Your task to perform on an android device: change timer sound Image 0: 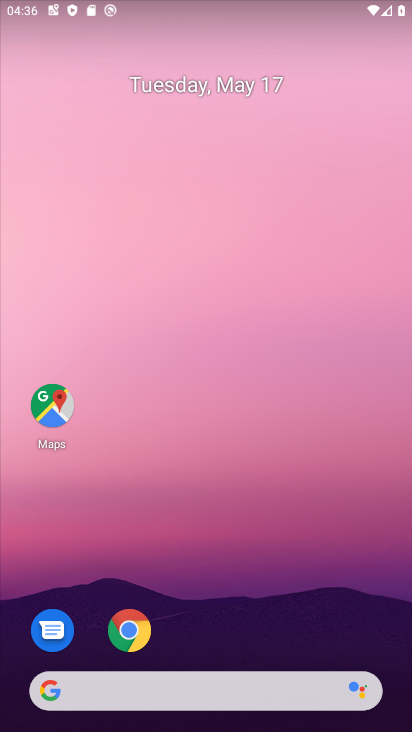
Step 0: drag from (222, 630) to (242, 38)
Your task to perform on an android device: change timer sound Image 1: 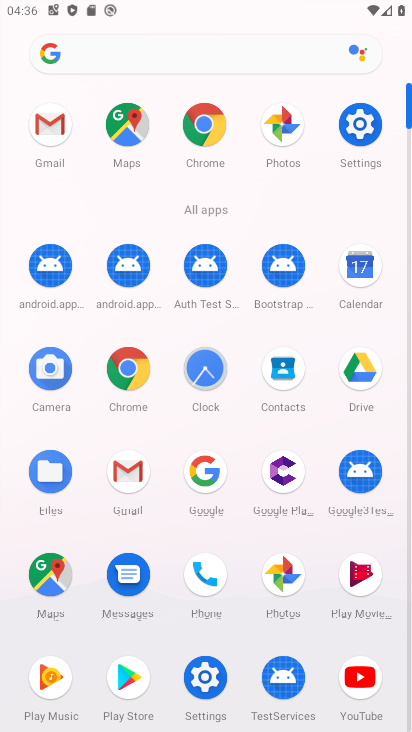
Step 1: click (359, 122)
Your task to perform on an android device: change timer sound Image 2: 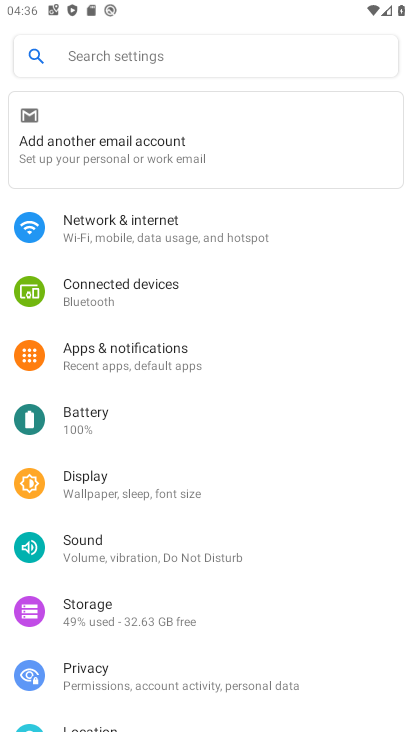
Step 2: press home button
Your task to perform on an android device: change timer sound Image 3: 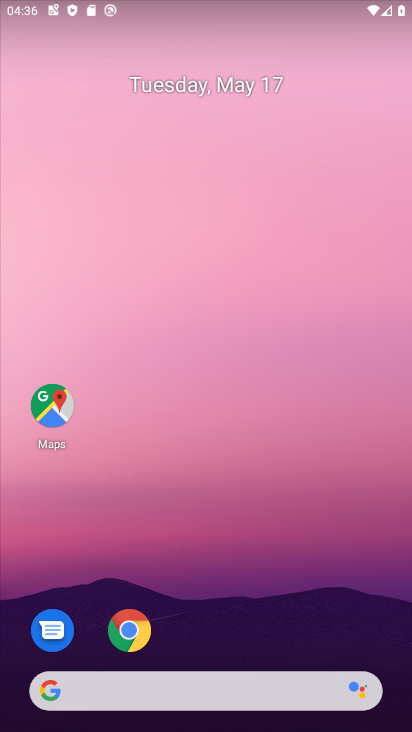
Step 3: drag from (223, 585) to (226, 106)
Your task to perform on an android device: change timer sound Image 4: 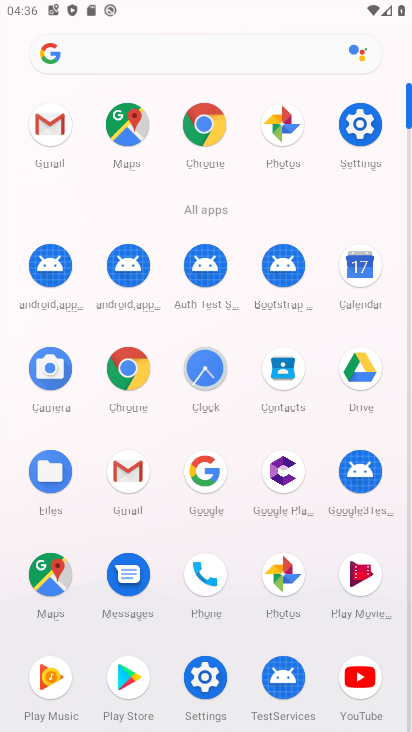
Step 4: click (212, 373)
Your task to perform on an android device: change timer sound Image 5: 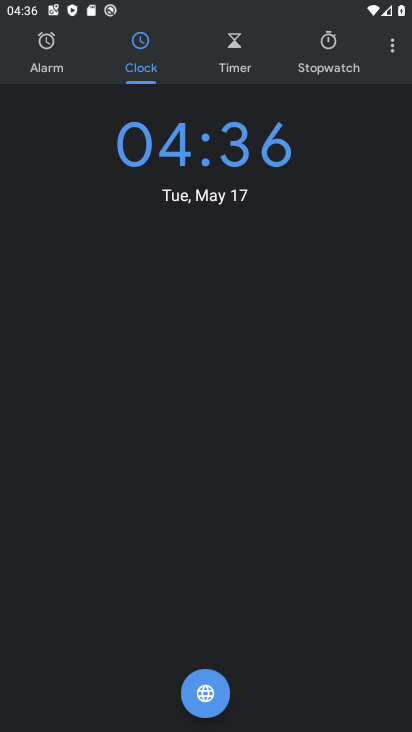
Step 5: click (393, 46)
Your task to perform on an android device: change timer sound Image 6: 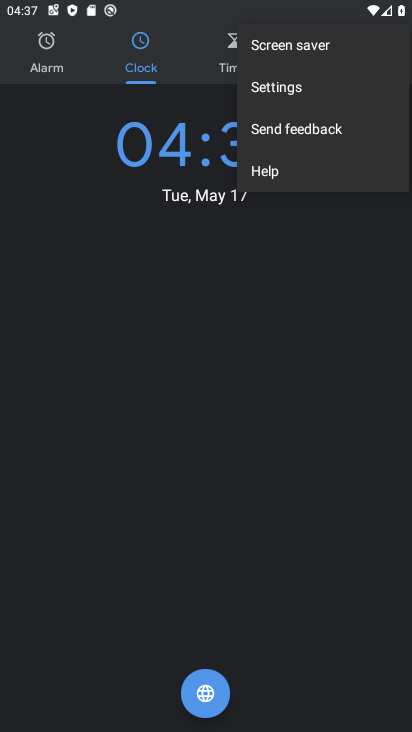
Step 6: click (279, 92)
Your task to perform on an android device: change timer sound Image 7: 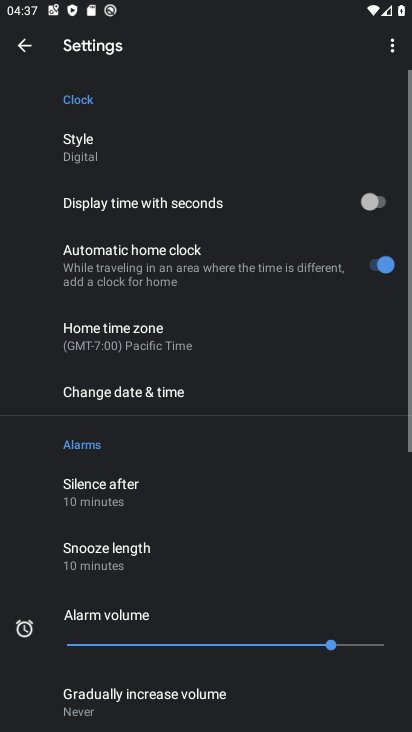
Step 7: drag from (227, 552) to (246, 99)
Your task to perform on an android device: change timer sound Image 8: 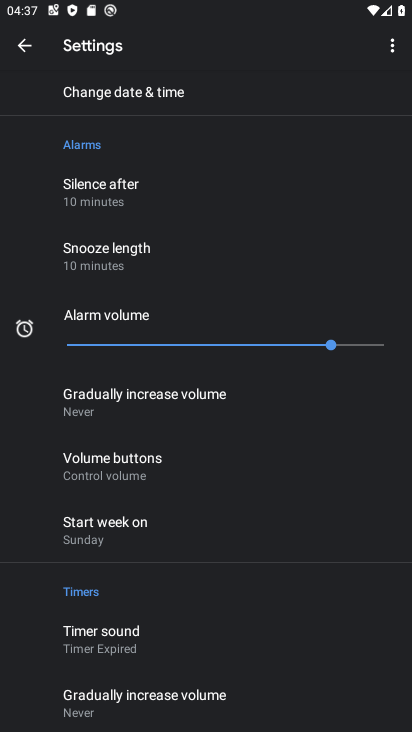
Step 8: click (122, 643)
Your task to perform on an android device: change timer sound Image 9: 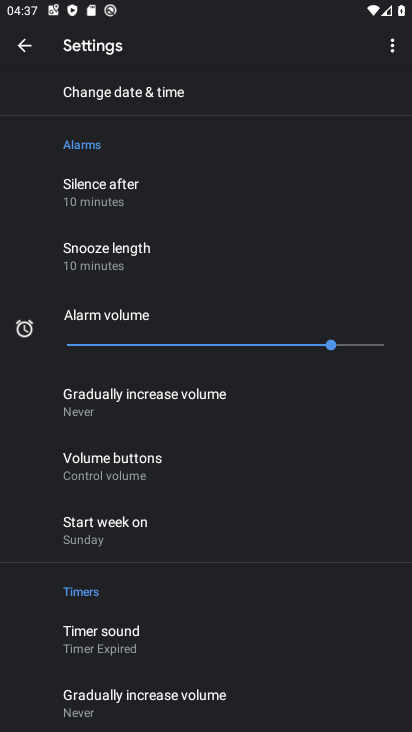
Step 9: click (105, 629)
Your task to perform on an android device: change timer sound Image 10: 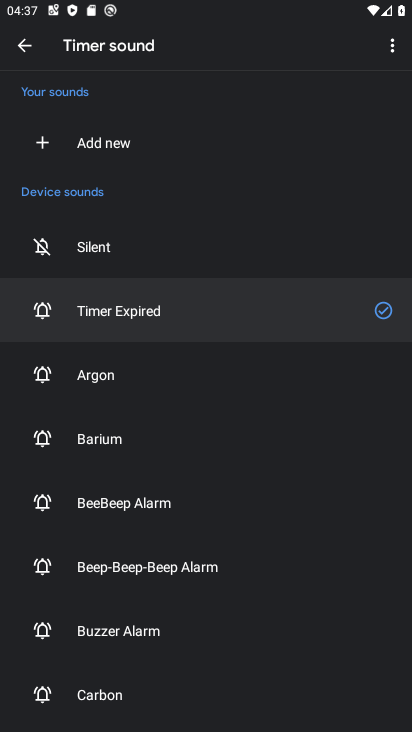
Step 10: click (93, 373)
Your task to perform on an android device: change timer sound Image 11: 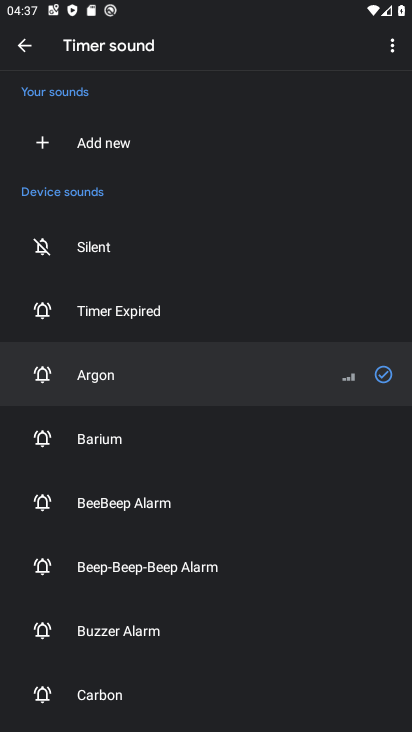
Step 11: click (384, 373)
Your task to perform on an android device: change timer sound Image 12: 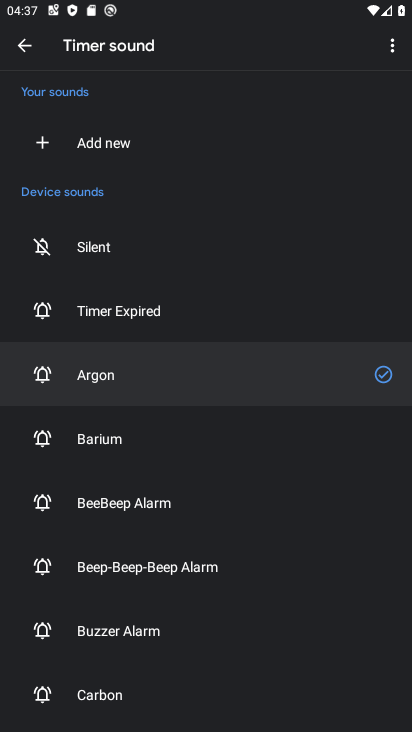
Step 12: task complete